Your task to perform on an android device: empty trash in google photos Image 0: 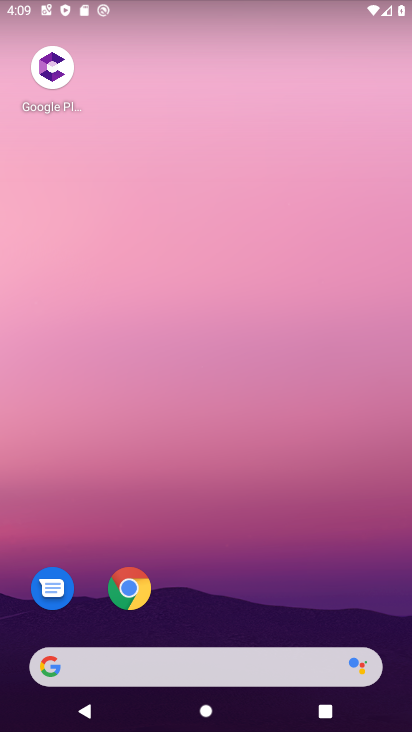
Step 0: drag from (114, 7) to (297, 56)
Your task to perform on an android device: empty trash in google photos Image 1: 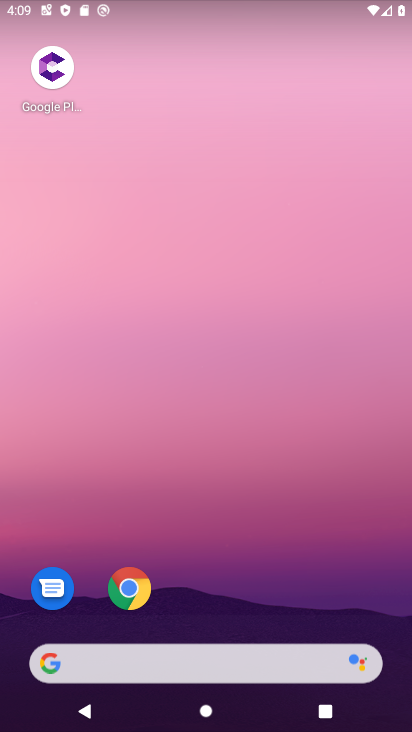
Step 1: drag from (184, 513) to (278, 15)
Your task to perform on an android device: empty trash in google photos Image 2: 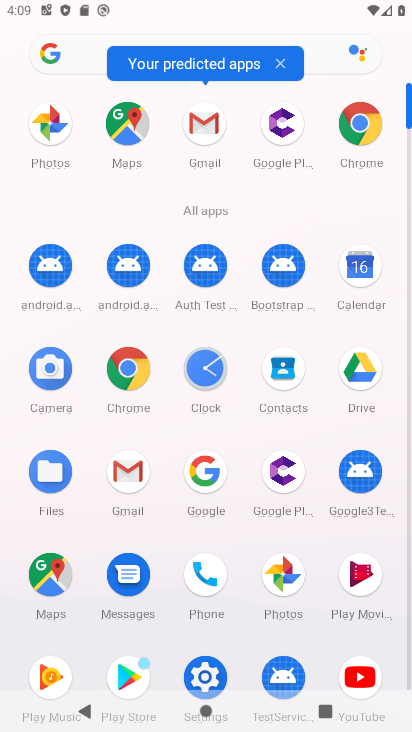
Step 2: click (280, 582)
Your task to perform on an android device: empty trash in google photos Image 3: 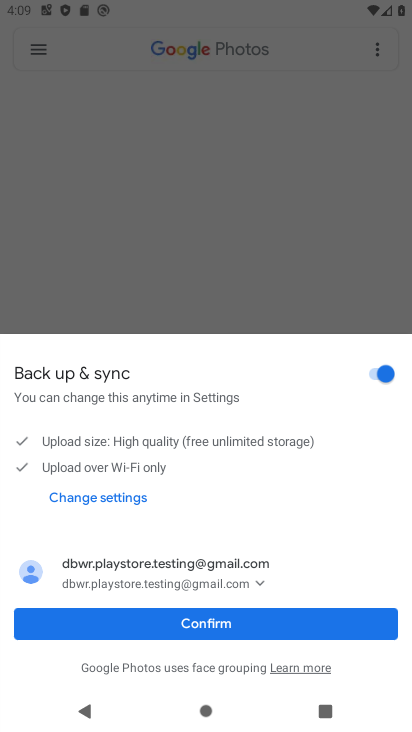
Step 3: click (210, 620)
Your task to perform on an android device: empty trash in google photos Image 4: 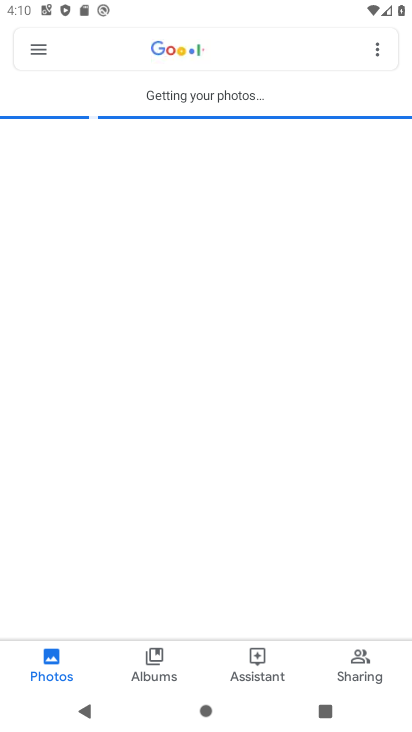
Step 4: click (45, 46)
Your task to perform on an android device: empty trash in google photos Image 5: 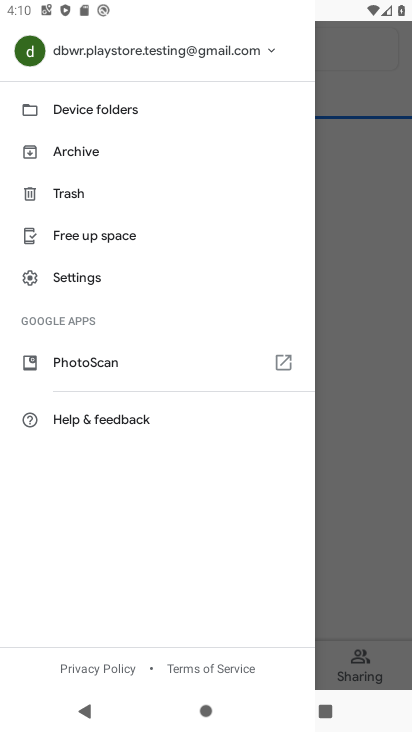
Step 5: click (83, 199)
Your task to perform on an android device: empty trash in google photos Image 6: 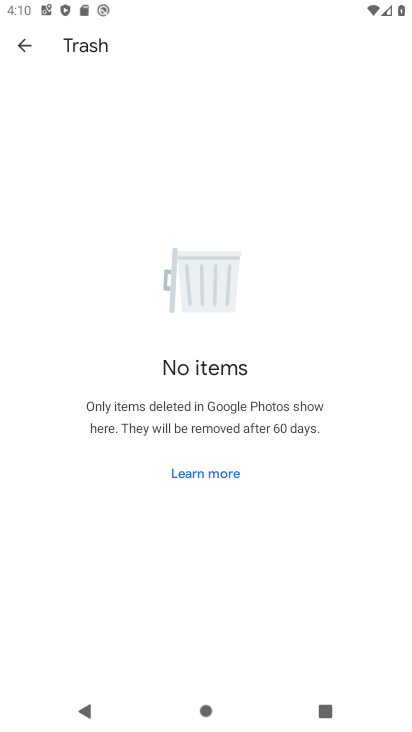
Step 6: task complete